Your task to perform on an android device: What's on my calendar today? Image 0: 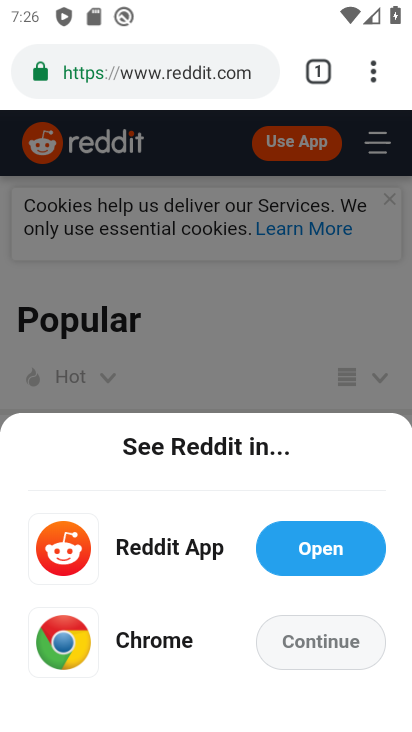
Step 0: press home button
Your task to perform on an android device: What's on my calendar today? Image 1: 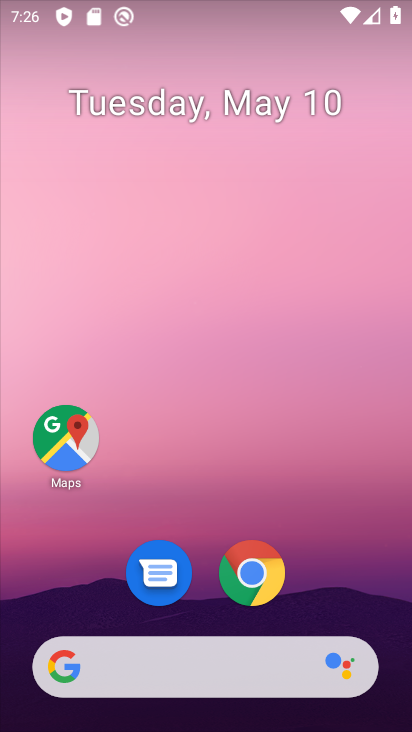
Step 1: drag from (320, 601) to (330, 192)
Your task to perform on an android device: What's on my calendar today? Image 2: 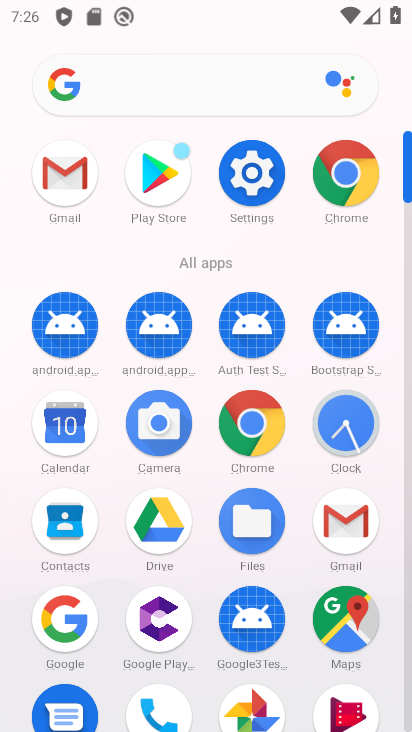
Step 2: click (60, 424)
Your task to perform on an android device: What's on my calendar today? Image 3: 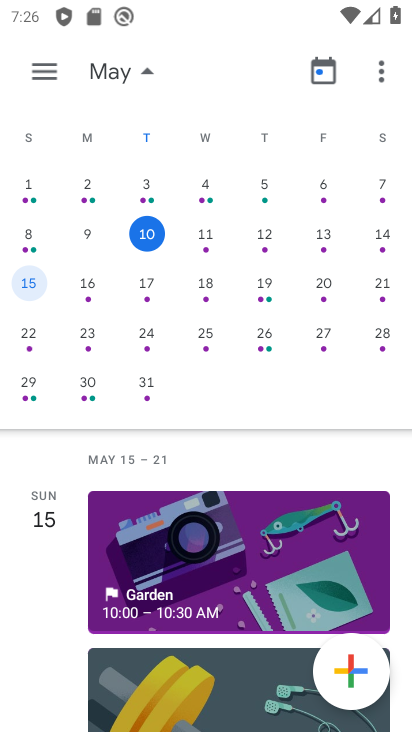
Step 3: click (145, 238)
Your task to perform on an android device: What's on my calendar today? Image 4: 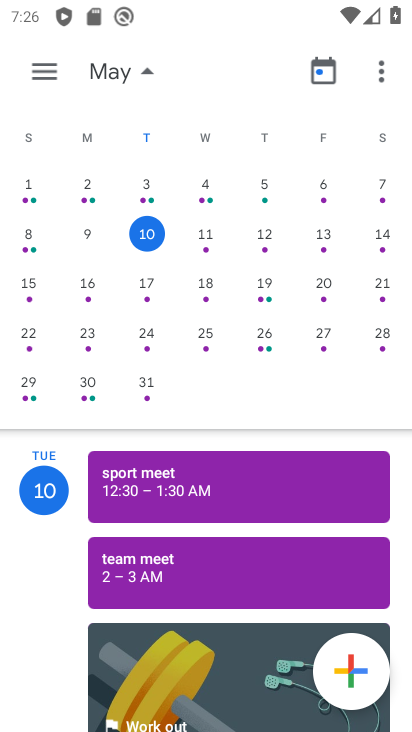
Step 4: task complete